Your task to perform on an android device: Open network settings Image 0: 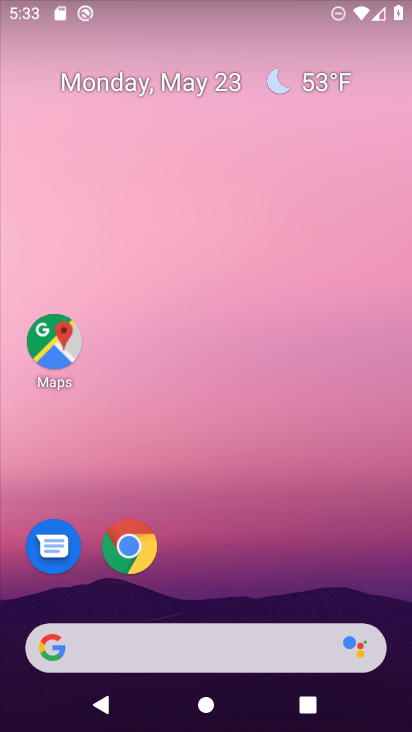
Step 0: drag from (259, 604) to (215, 89)
Your task to perform on an android device: Open network settings Image 1: 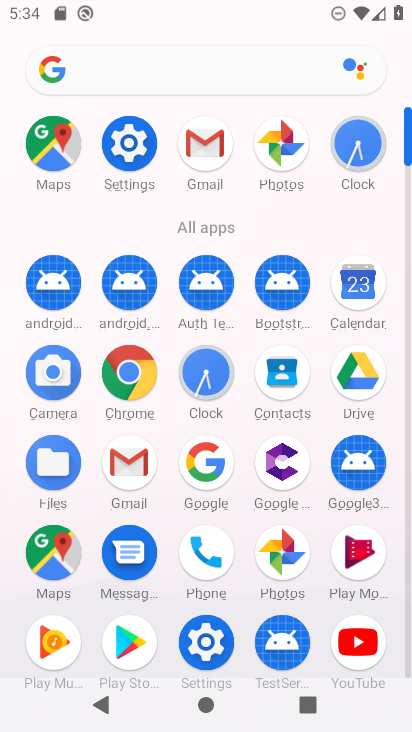
Step 1: click (131, 142)
Your task to perform on an android device: Open network settings Image 2: 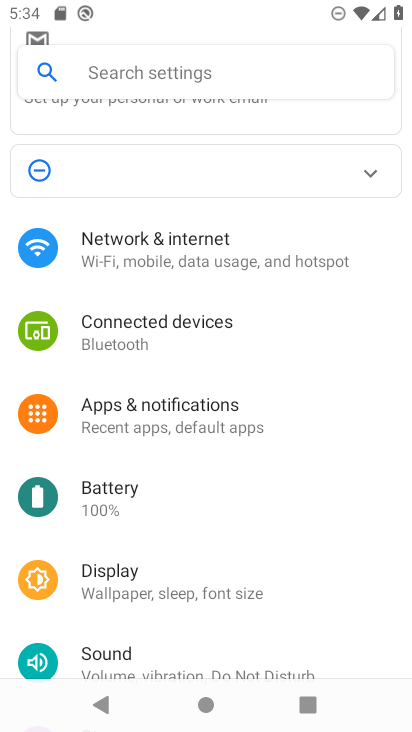
Step 2: click (201, 249)
Your task to perform on an android device: Open network settings Image 3: 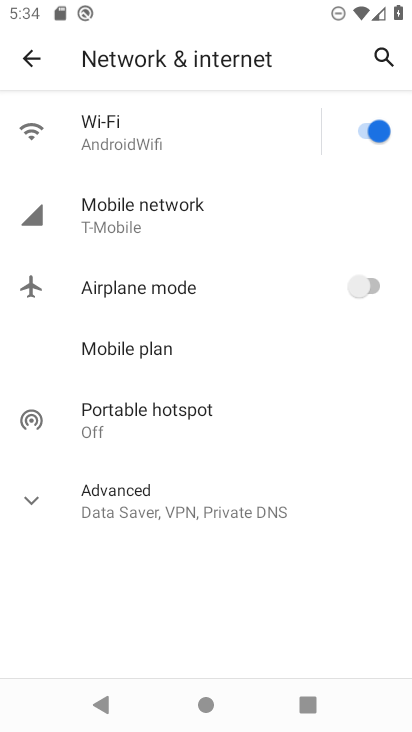
Step 3: task complete